Your task to perform on an android device: Do I have any events tomorrow? Image 0: 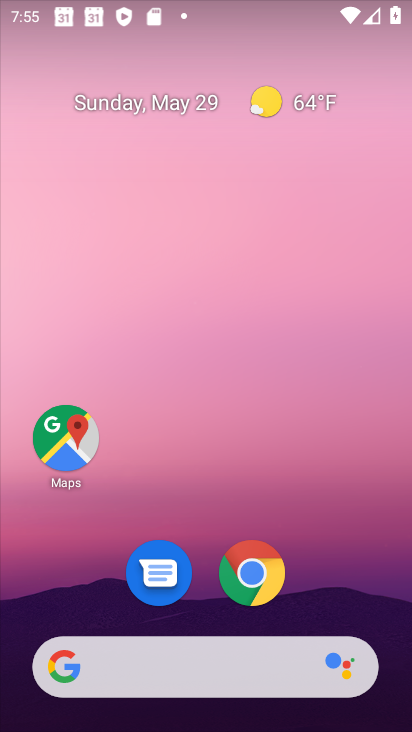
Step 0: drag from (124, 487) to (293, 68)
Your task to perform on an android device: Do I have any events tomorrow? Image 1: 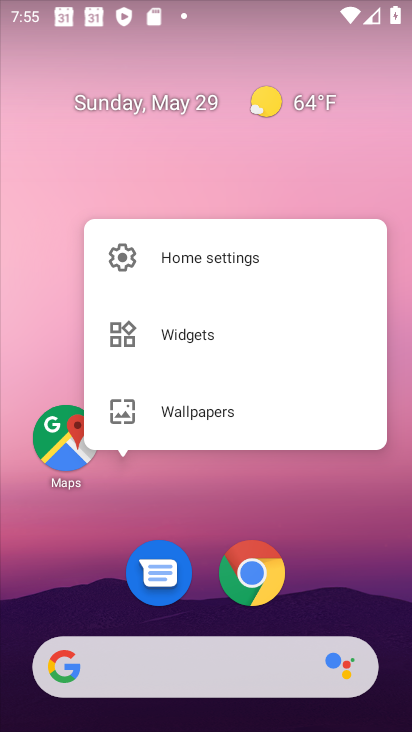
Step 1: drag from (47, 610) to (189, 0)
Your task to perform on an android device: Do I have any events tomorrow? Image 2: 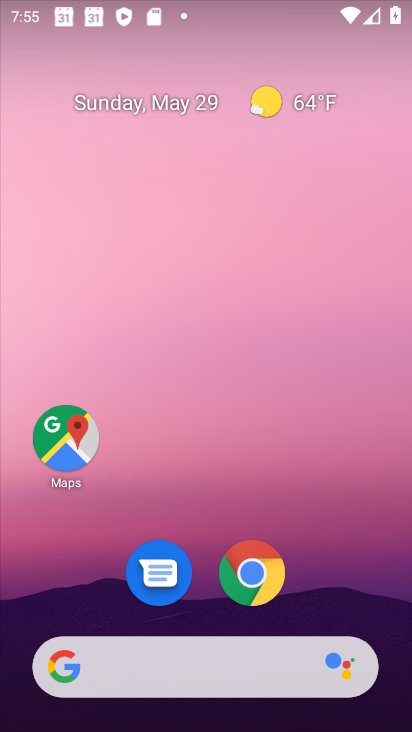
Step 2: drag from (77, 612) to (279, 41)
Your task to perform on an android device: Do I have any events tomorrow? Image 3: 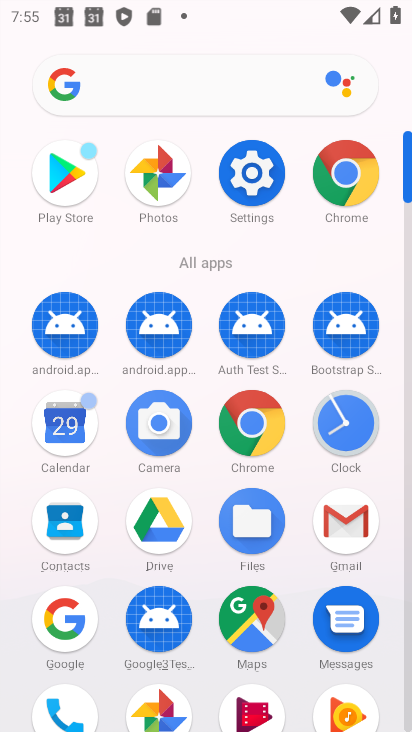
Step 3: click (76, 420)
Your task to perform on an android device: Do I have any events tomorrow? Image 4: 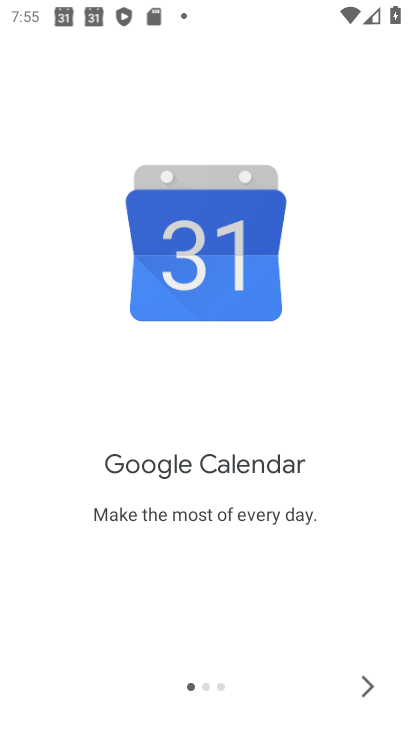
Step 4: click (370, 686)
Your task to perform on an android device: Do I have any events tomorrow? Image 5: 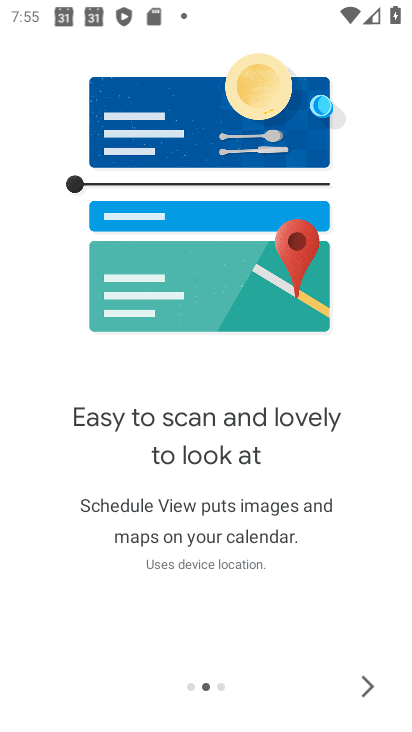
Step 5: click (370, 686)
Your task to perform on an android device: Do I have any events tomorrow? Image 6: 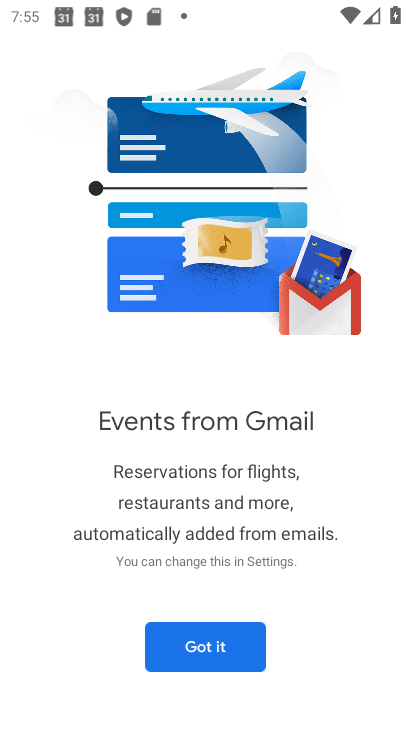
Step 6: click (370, 686)
Your task to perform on an android device: Do I have any events tomorrow? Image 7: 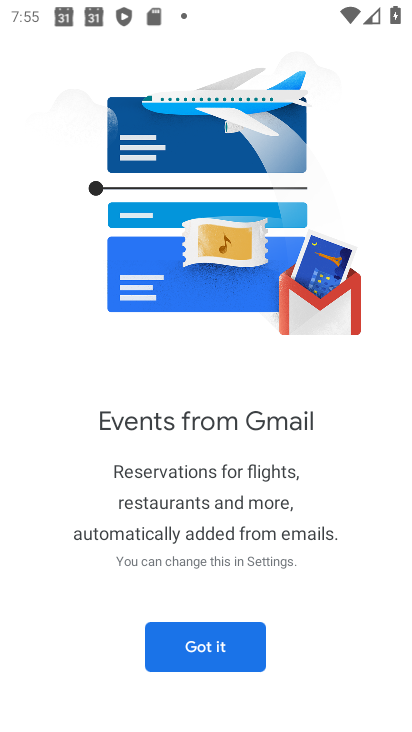
Step 7: click (240, 657)
Your task to perform on an android device: Do I have any events tomorrow? Image 8: 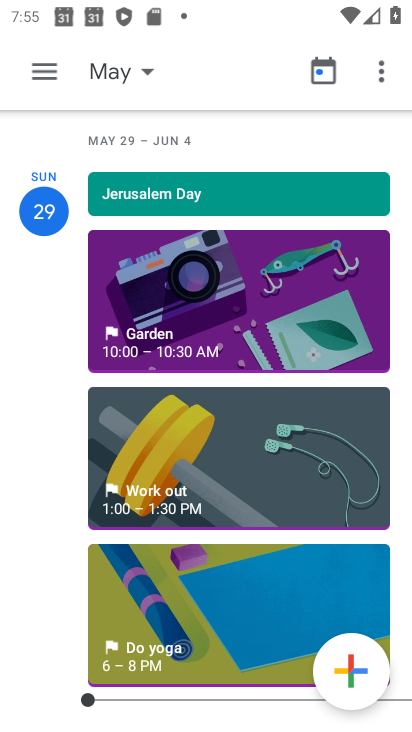
Step 8: drag from (95, 653) to (238, 157)
Your task to perform on an android device: Do I have any events tomorrow? Image 9: 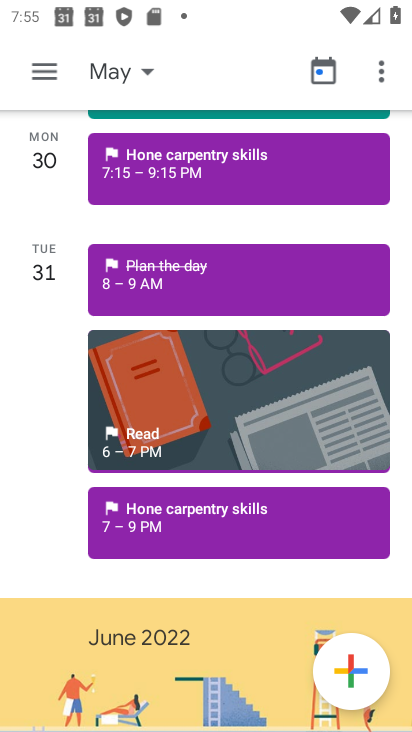
Step 9: click (45, 166)
Your task to perform on an android device: Do I have any events tomorrow? Image 10: 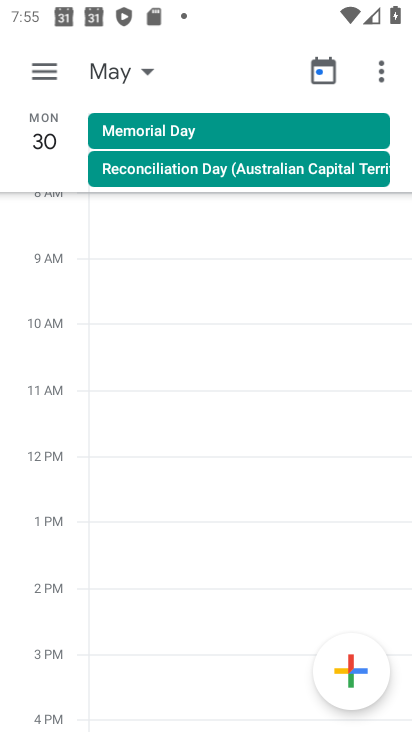
Step 10: task complete